Your task to perform on an android device: change notifications settings Image 0: 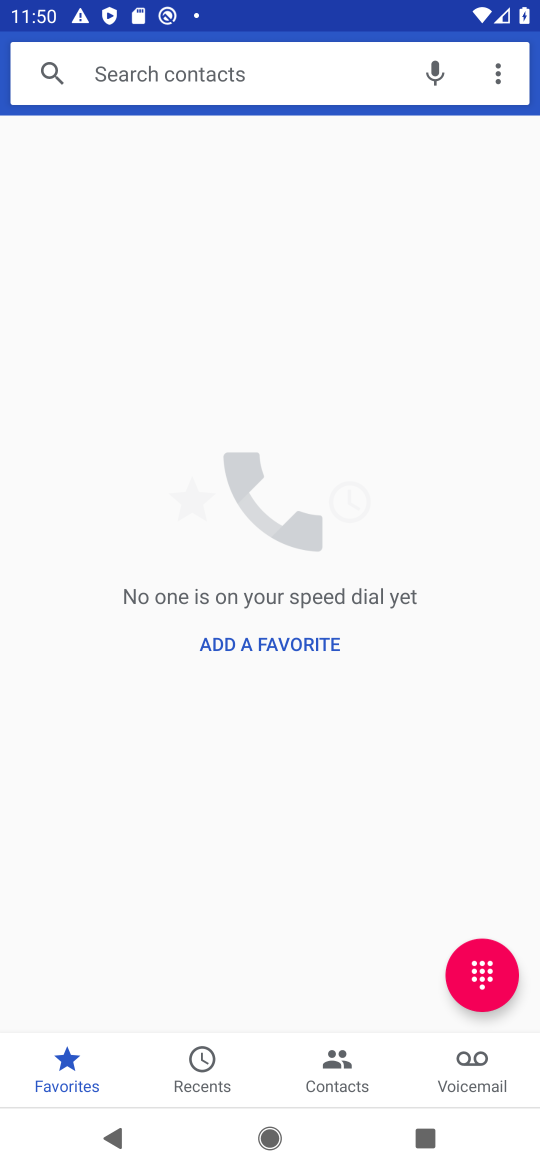
Step 0: press home button
Your task to perform on an android device: change notifications settings Image 1: 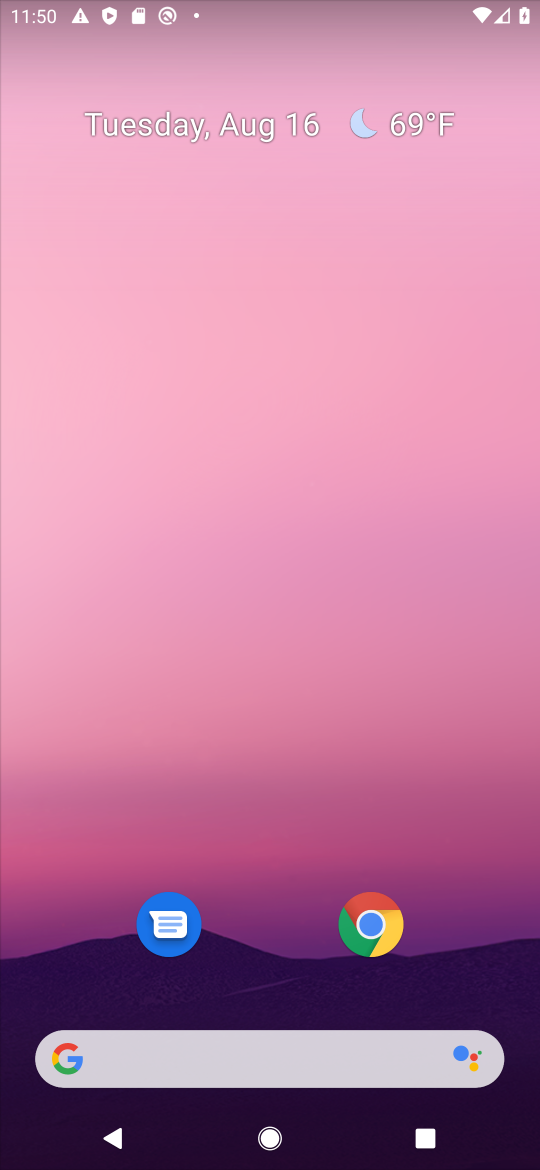
Step 1: drag from (263, 986) to (308, 121)
Your task to perform on an android device: change notifications settings Image 2: 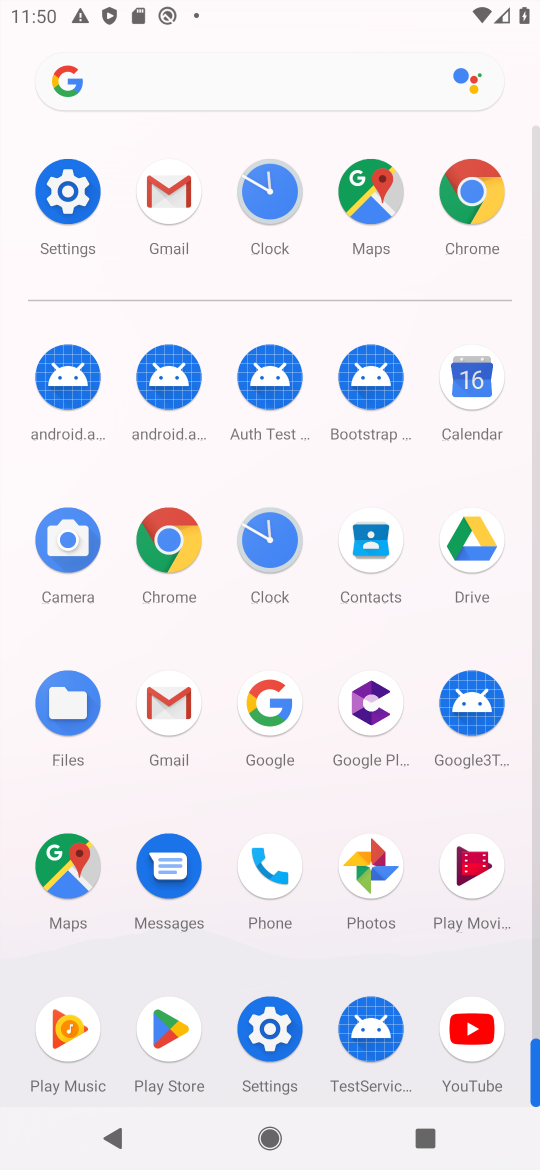
Step 2: click (76, 213)
Your task to perform on an android device: change notifications settings Image 3: 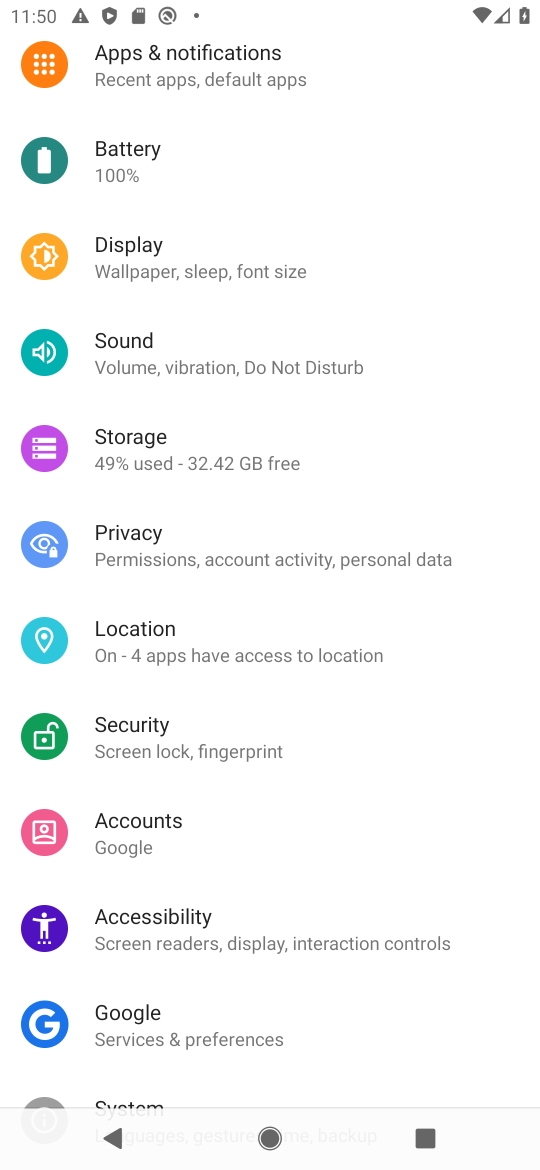
Step 3: click (186, 75)
Your task to perform on an android device: change notifications settings Image 4: 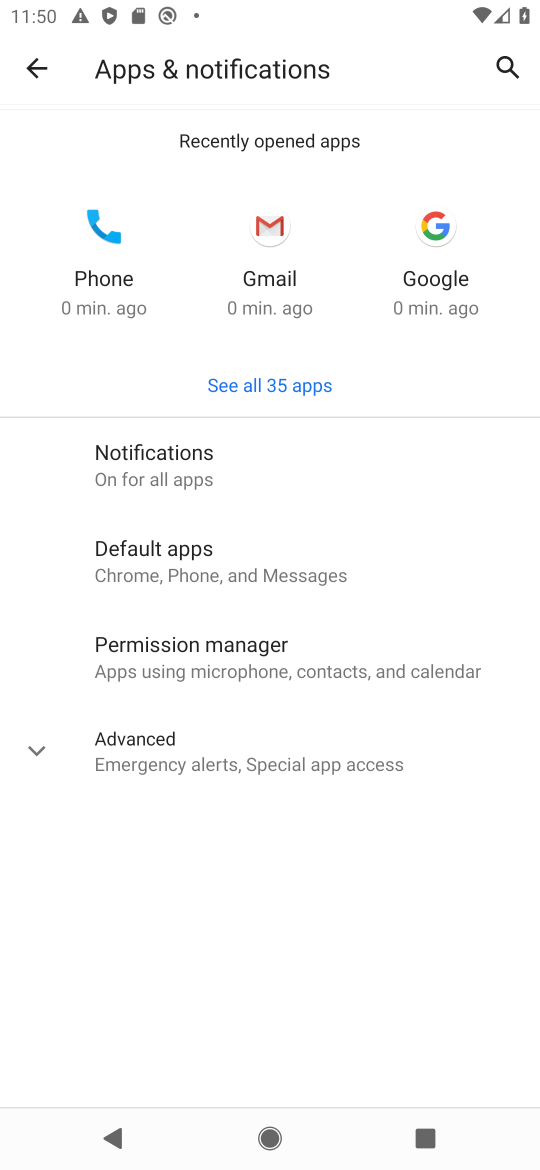
Step 4: click (125, 444)
Your task to perform on an android device: change notifications settings Image 5: 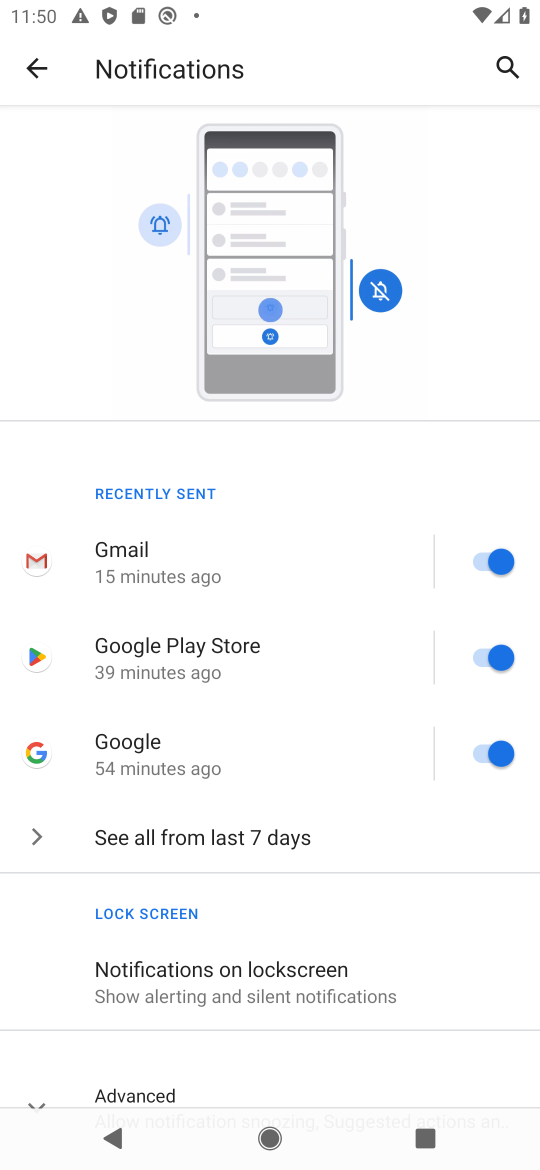
Step 5: drag from (361, 1010) to (299, 385)
Your task to perform on an android device: change notifications settings Image 6: 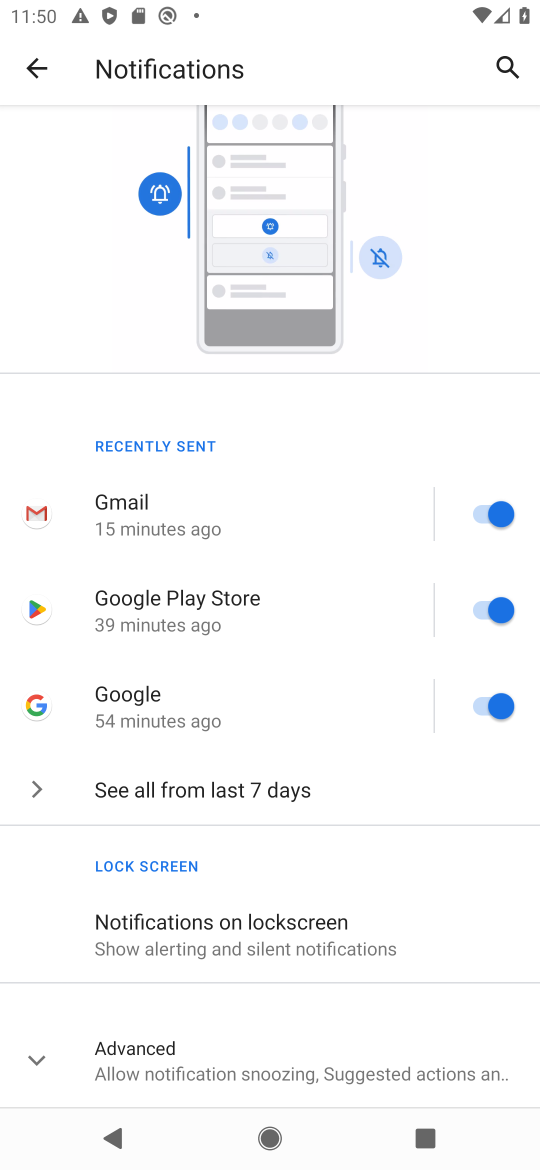
Step 6: click (328, 1028)
Your task to perform on an android device: change notifications settings Image 7: 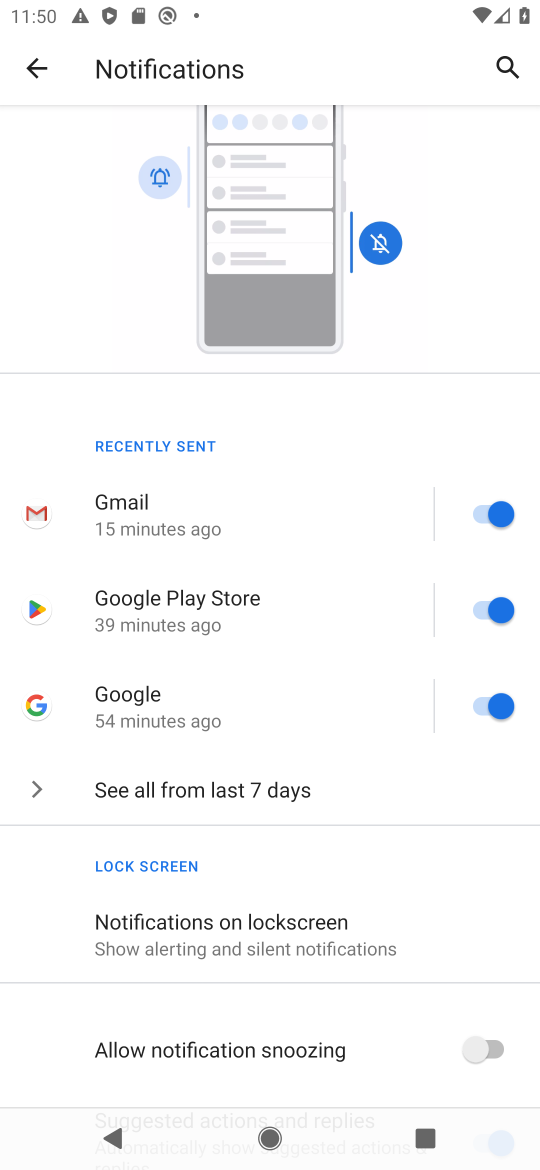
Step 7: drag from (386, 1026) to (393, 314)
Your task to perform on an android device: change notifications settings Image 8: 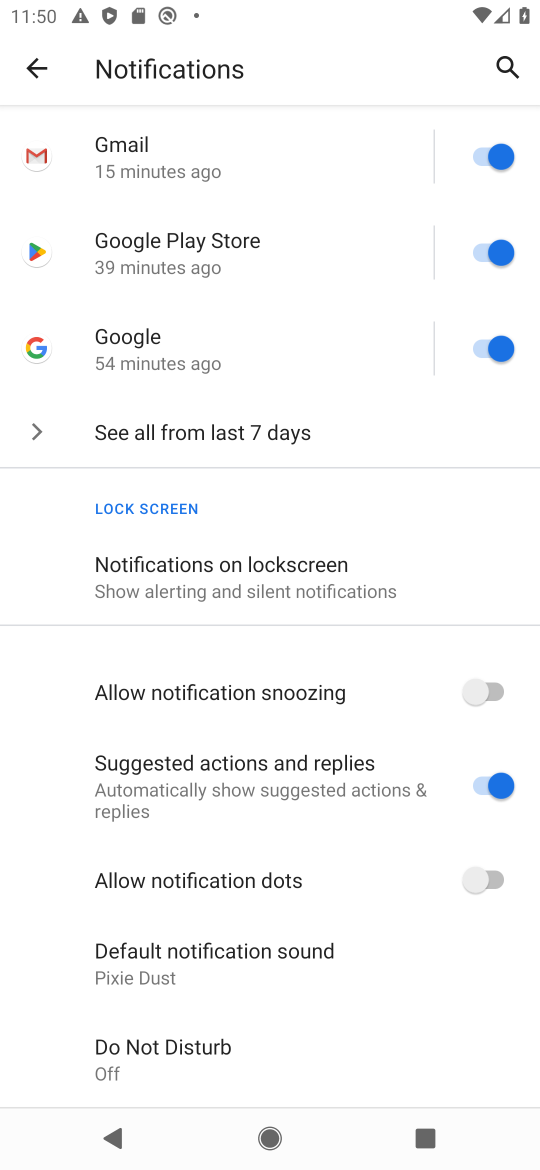
Step 8: click (502, 686)
Your task to perform on an android device: change notifications settings Image 9: 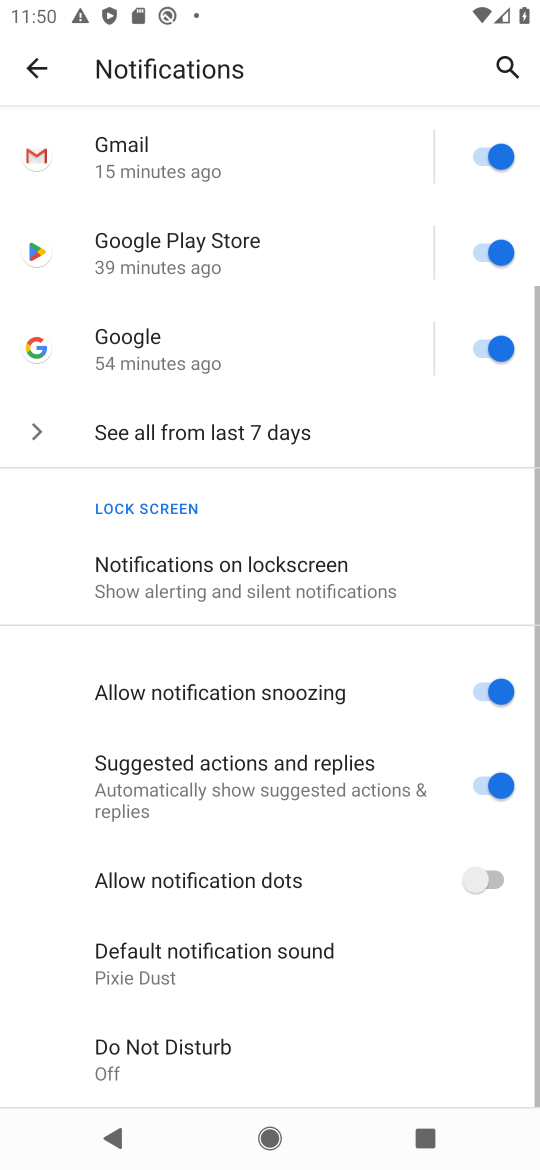
Step 9: click (503, 779)
Your task to perform on an android device: change notifications settings Image 10: 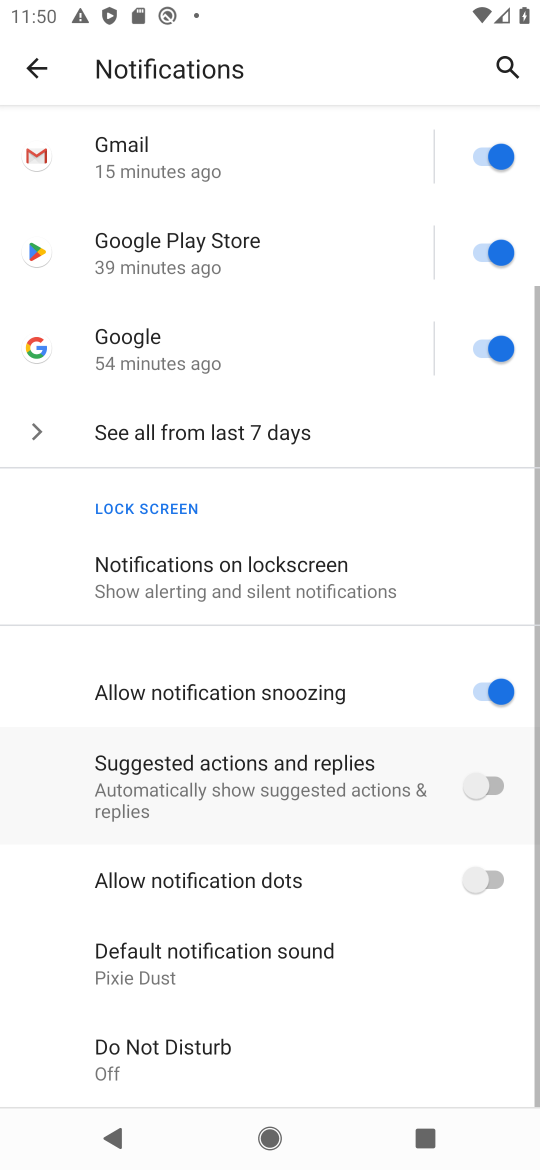
Step 10: click (500, 891)
Your task to perform on an android device: change notifications settings Image 11: 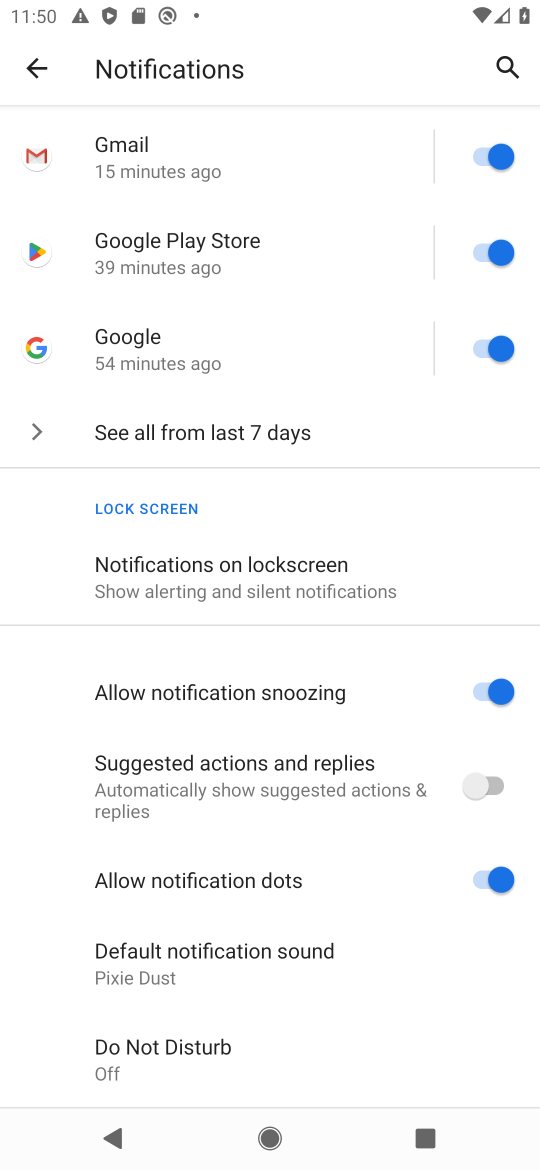
Step 11: task complete